Your task to perform on an android device: Toggle the flashlight Image 0: 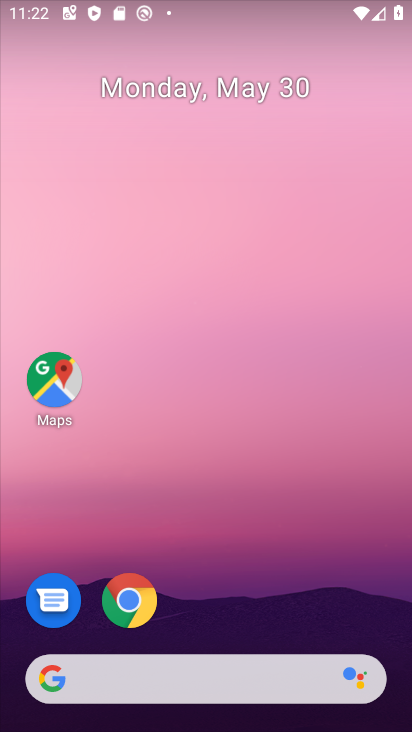
Step 0: drag from (215, 724) to (202, 36)
Your task to perform on an android device: Toggle the flashlight Image 1: 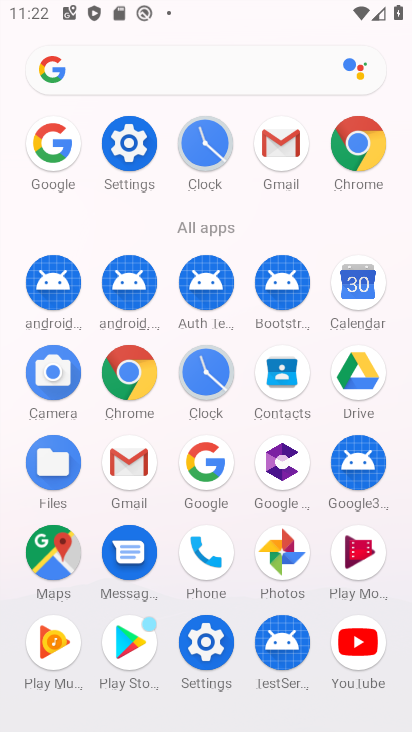
Step 1: click (130, 141)
Your task to perform on an android device: Toggle the flashlight Image 2: 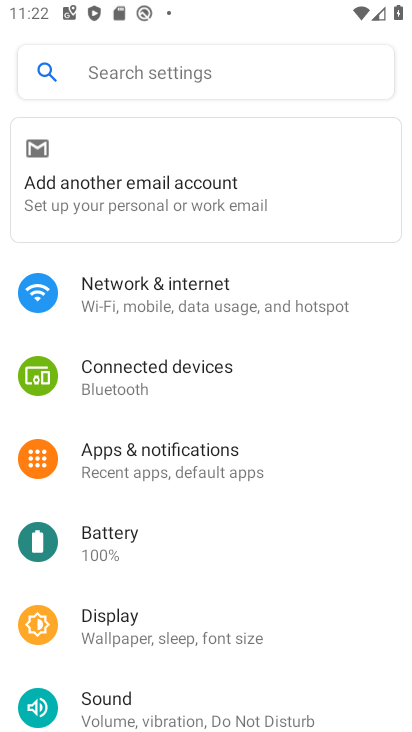
Step 2: drag from (185, 693) to (189, 224)
Your task to perform on an android device: Toggle the flashlight Image 3: 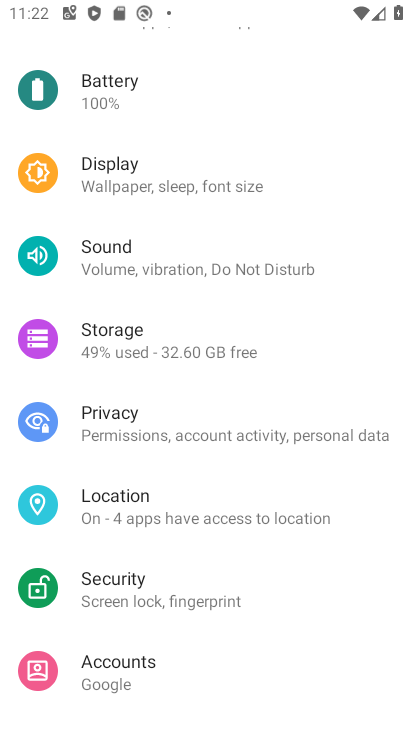
Step 3: drag from (202, 701) to (203, 531)
Your task to perform on an android device: Toggle the flashlight Image 4: 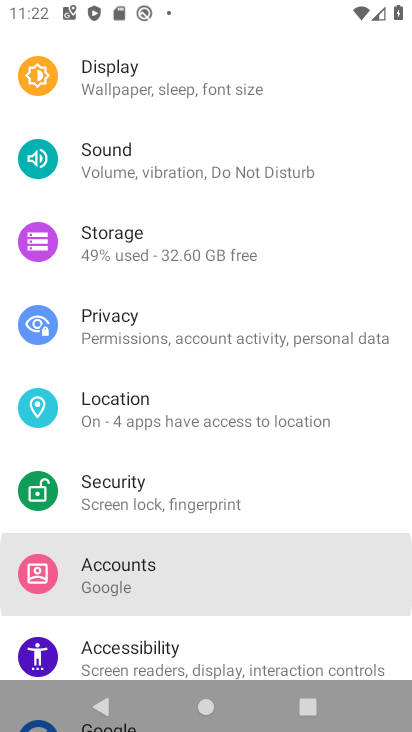
Step 4: drag from (204, 248) to (204, 204)
Your task to perform on an android device: Toggle the flashlight Image 5: 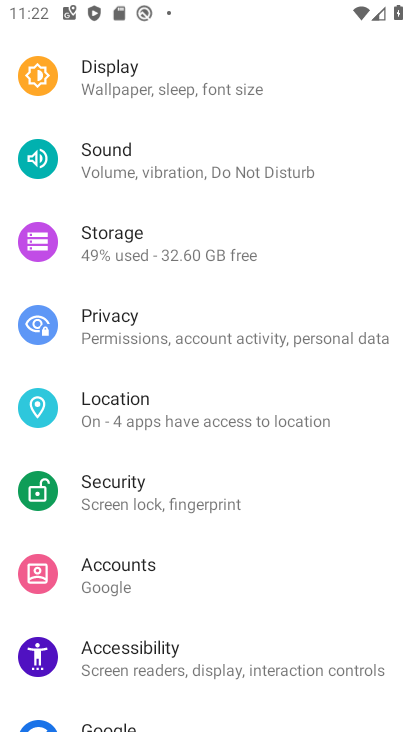
Step 5: drag from (195, 700) to (193, 591)
Your task to perform on an android device: Toggle the flashlight Image 6: 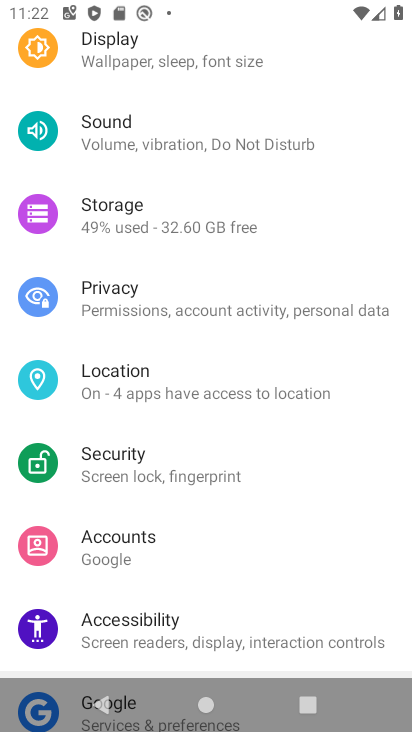
Step 6: click (187, 223)
Your task to perform on an android device: Toggle the flashlight Image 7: 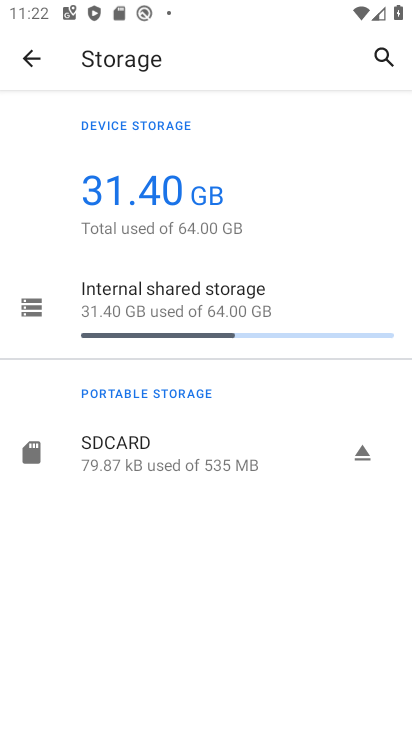
Step 7: click (33, 56)
Your task to perform on an android device: Toggle the flashlight Image 8: 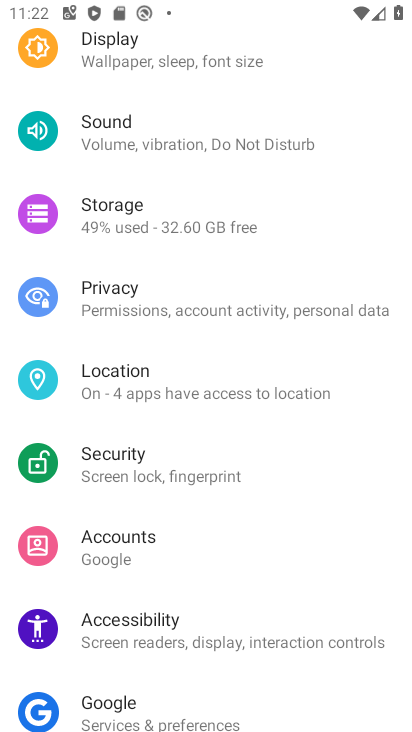
Step 8: task complete